Your task to perform on an android device: set default search engine in the chrome app Image 0: 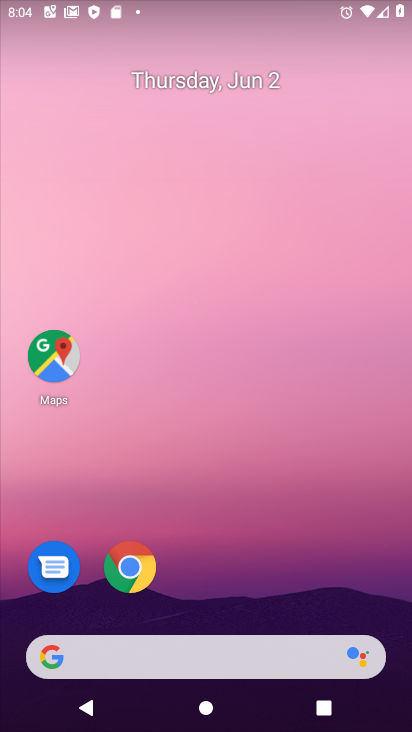
Step 0: click (132, 570)
Your task to perform on an android device: set default search engine in the chrome app Image 1: 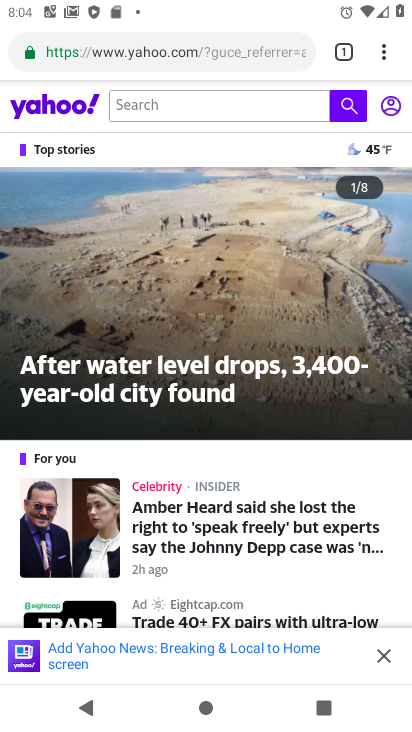
Step 1: click (383, 51)
Your task to perform on an android device: set default search engine in the chrome app Image 2: 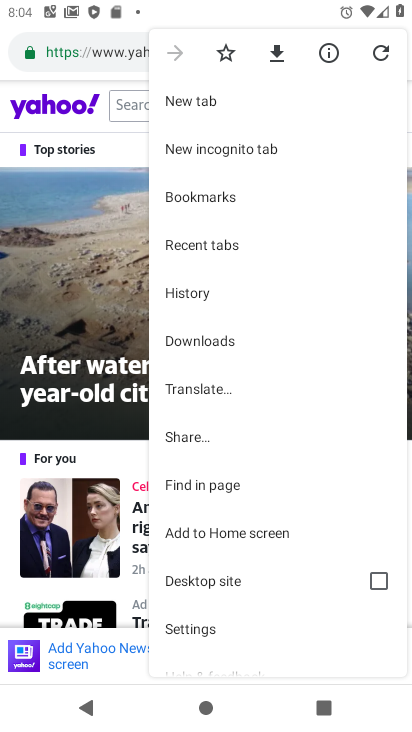
Step 2: click (194, 624)
Your task to perform on an android device: set default search engine in the chrome app Image 3: 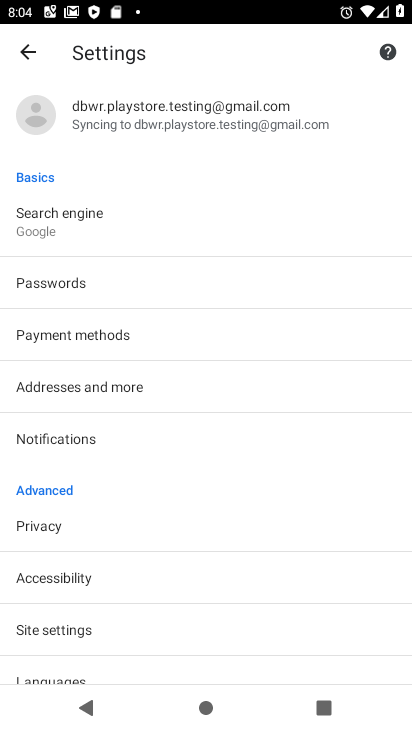
Step 3: click (160, 216)
Your task to perform on an android device: set default search engine in the chrome app Image 4: 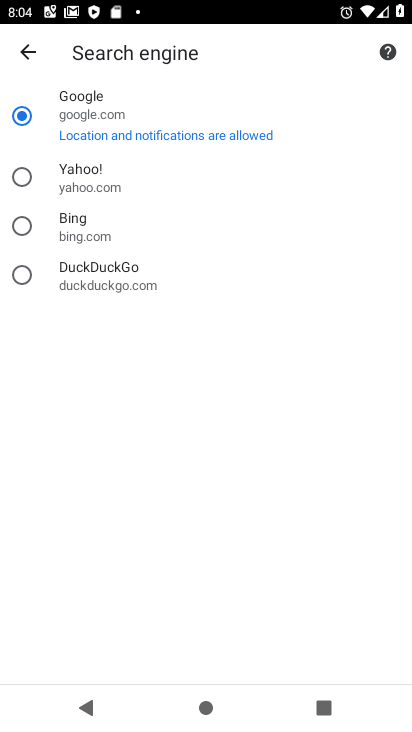
Step 4: click (24, 110)
Your task to perform on an android device: set default search engine in the chrome app Image 5: 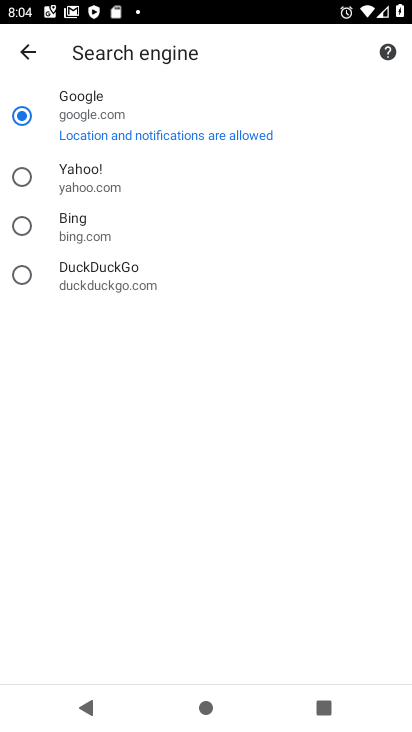
Step 5: task complete